Your task to perform on an android device: refresh tabs in the chrome app Image 0: 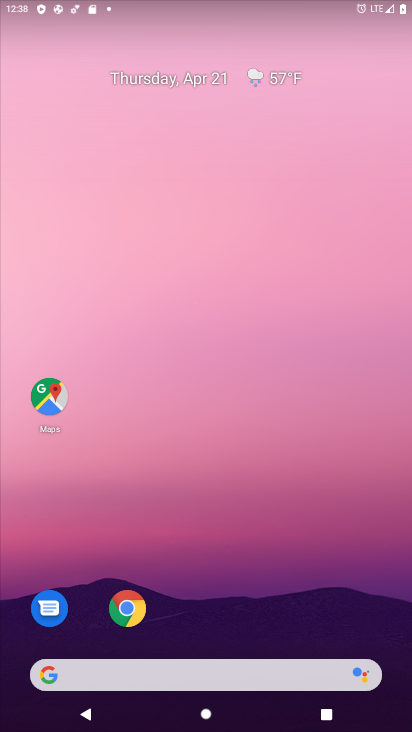
Step 0: click (133, 612)
Your task to perform on an android device: refresh tabs in the chrome app Image 1: 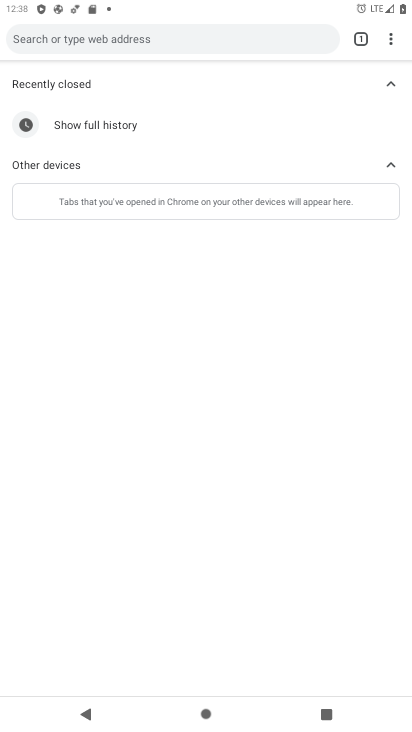
Step 1: click (389, 38)
Your task to perform on an android device: refresh tabs in the chrome app Image 2: 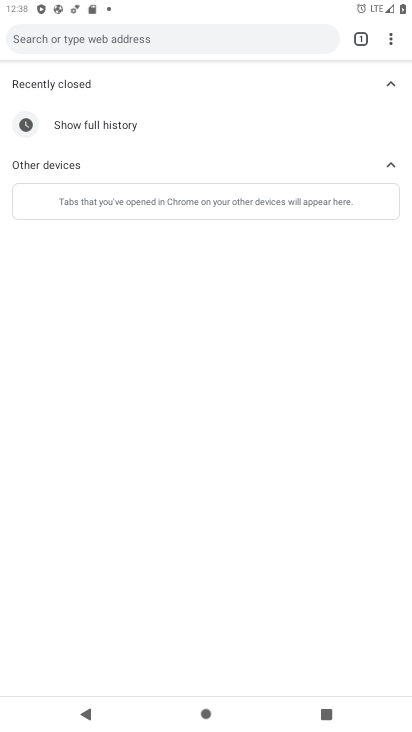
Step 2: task complete